Your task to perform on an android device: Open Chrome and go to settings Image 0: 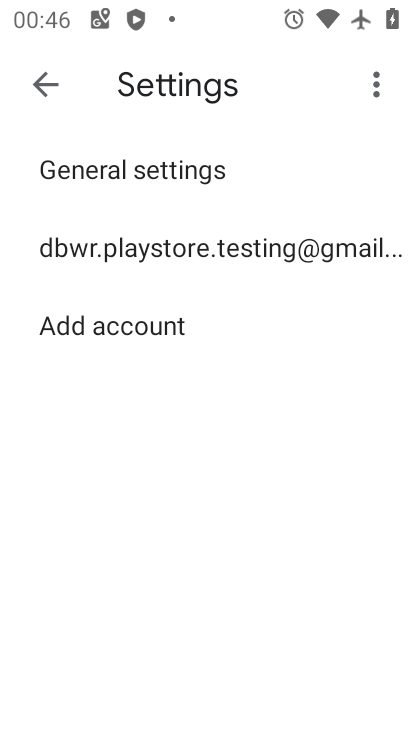
Step 0: press home button
Your task to perform on an android device: Open Chrome and go to settings Image 1: 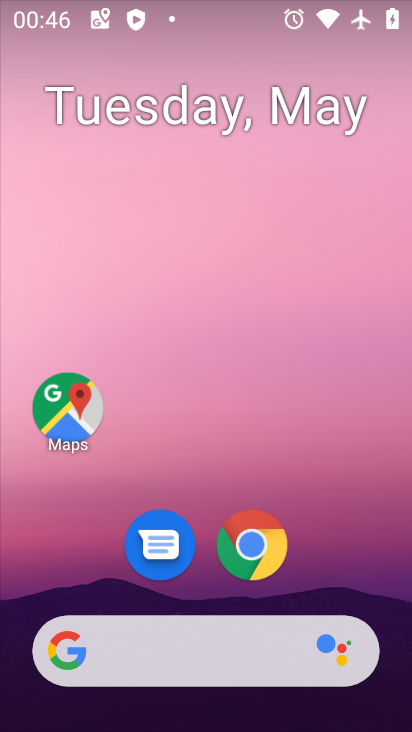
Step 1: click (249, 544)
Your task to perform on an android device: Open Chrome and go to settings Image 2: 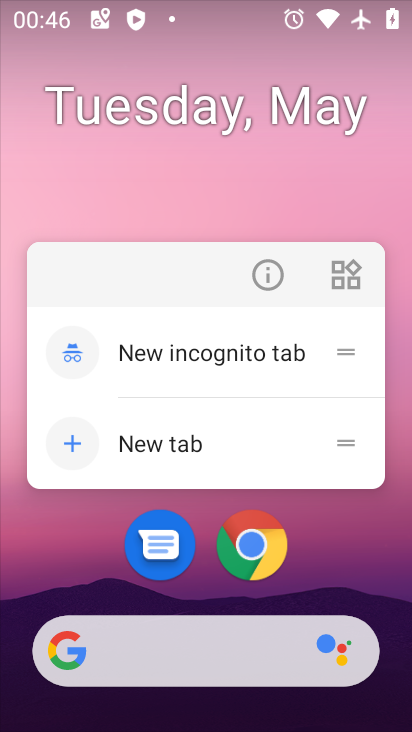
Step 2: click (249, 544)
Your task to perform on an android device: Open Chrome and go to settings Image 3: 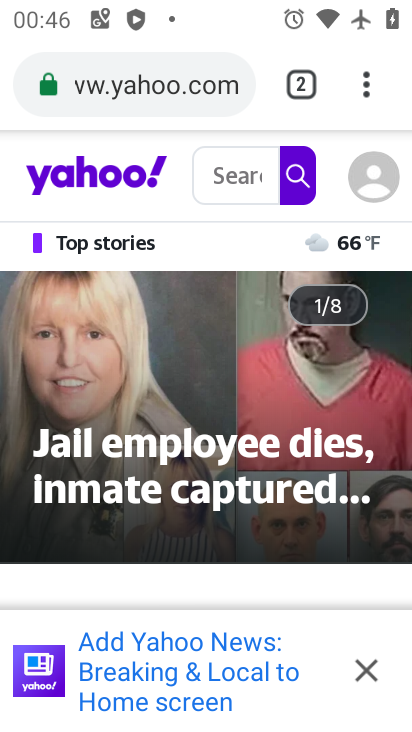
Step 3: click (365, 91)
Your task to perform on an android device: Open Chrome and go to settings Image 4: 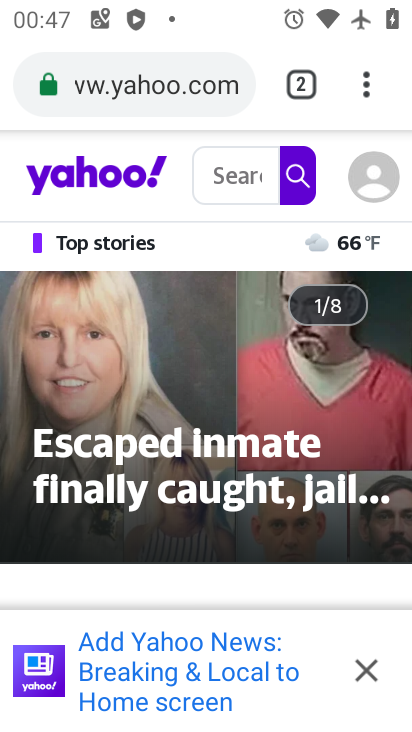
Step 4: click (366, 94)
Your task to perform on an android device: Open Chrome and go to settings Image 5: 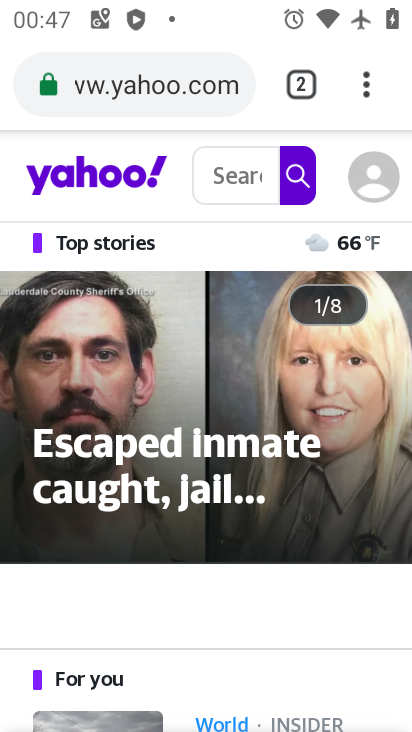
Step 5: click (360, 103)
Your task to perform on an android device: Open Chrome and go to settings Image 6: 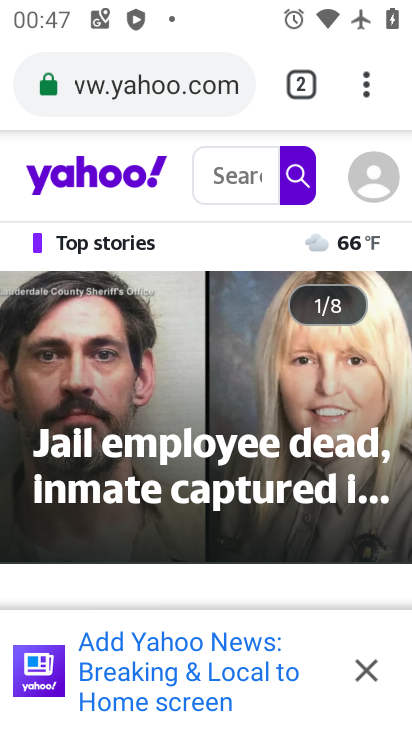
Step 6: click (360, 103)
Your task to perform on an android device: Open Chrome and go to settings Image 7: 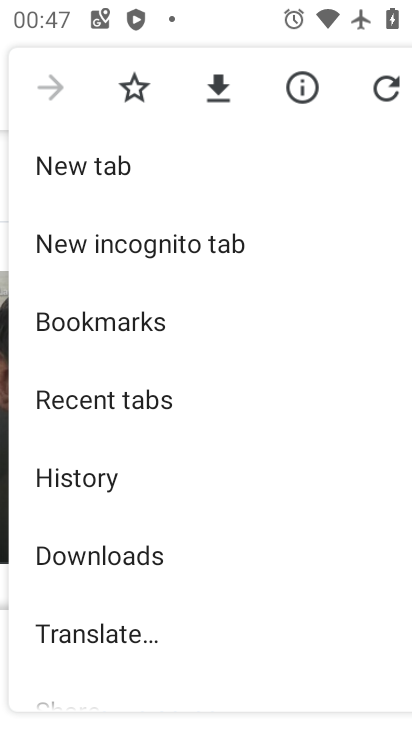
Step 7: drag from (202, 579) to (212, 220)
Your task to perform on an android device: Open Chrome and go to settings Image 8: 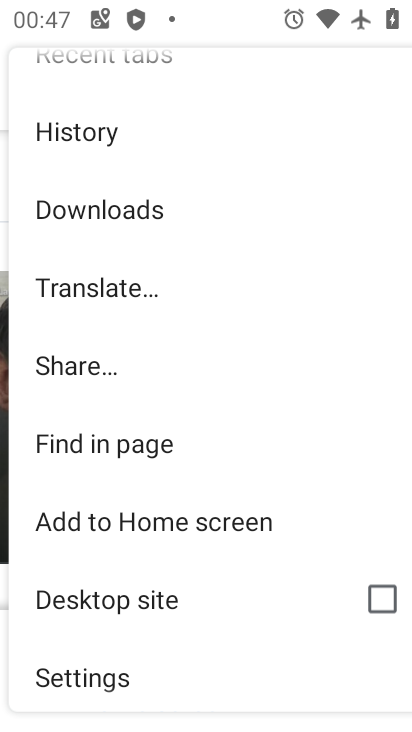
Step 8: click (121, 669)
Your task to perform on an android device: Open Chrome and go to settings Image 9: 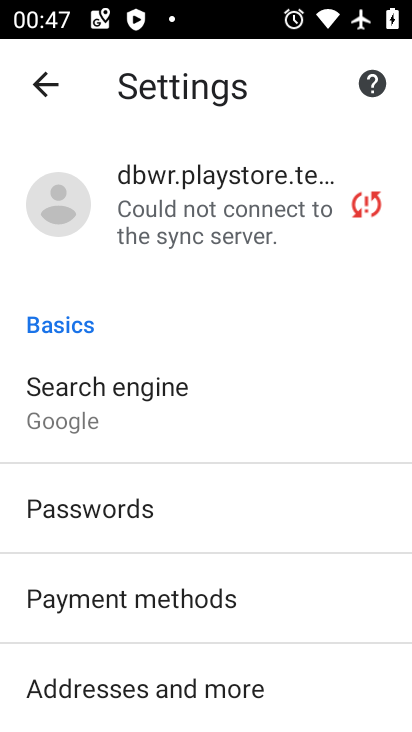
Step 9: task complete